Your task to perform on an android device: change the upload size in google photos Image 0: 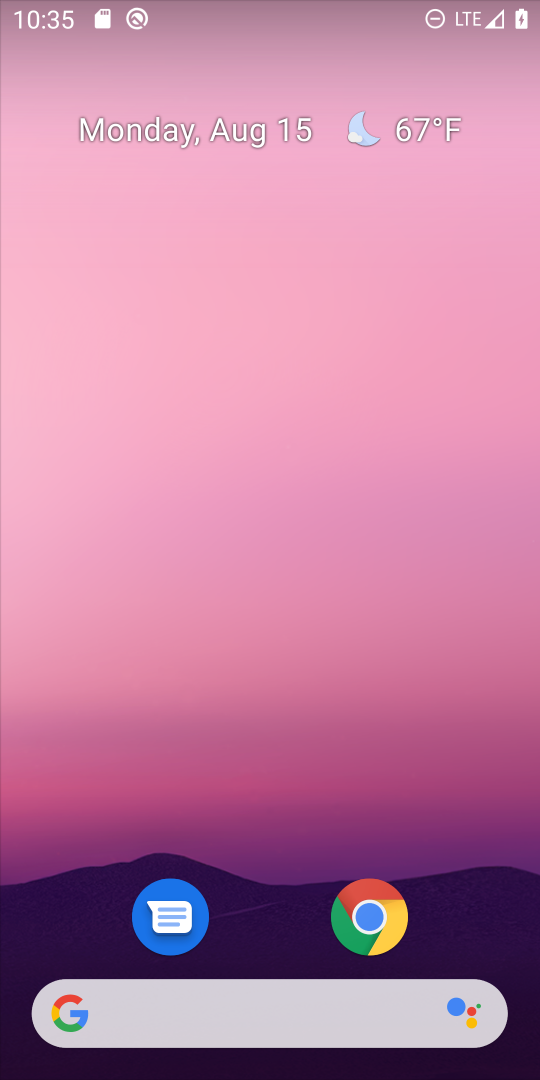
Step 0: drag from (296, 861) to (457, 55)
Your task to perform on an android device: change the upload size in google photos Image 1: 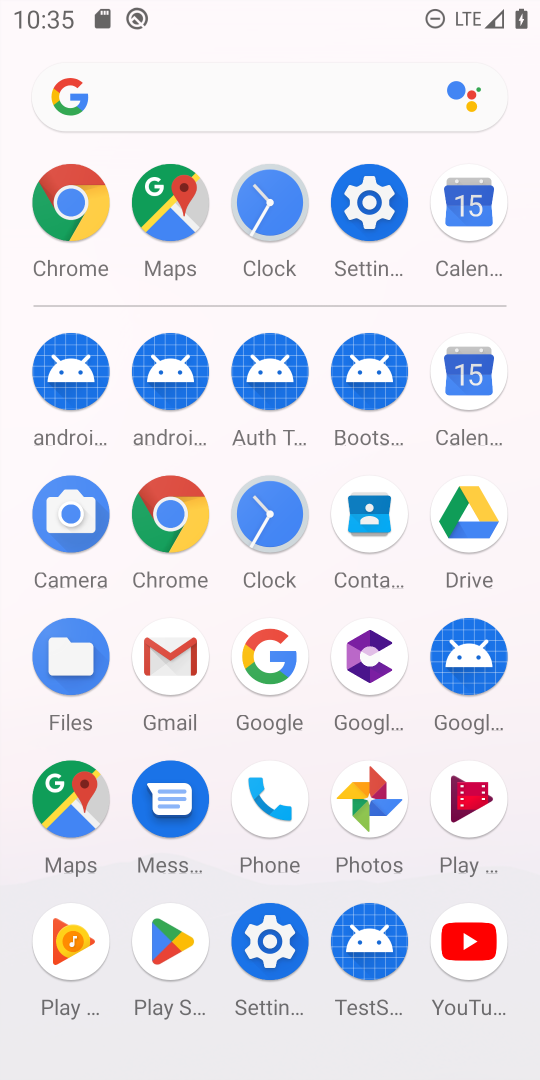
Step 1: click (376, 791)
Your task to perform on an android device: change the upload size in google photos Image 2: 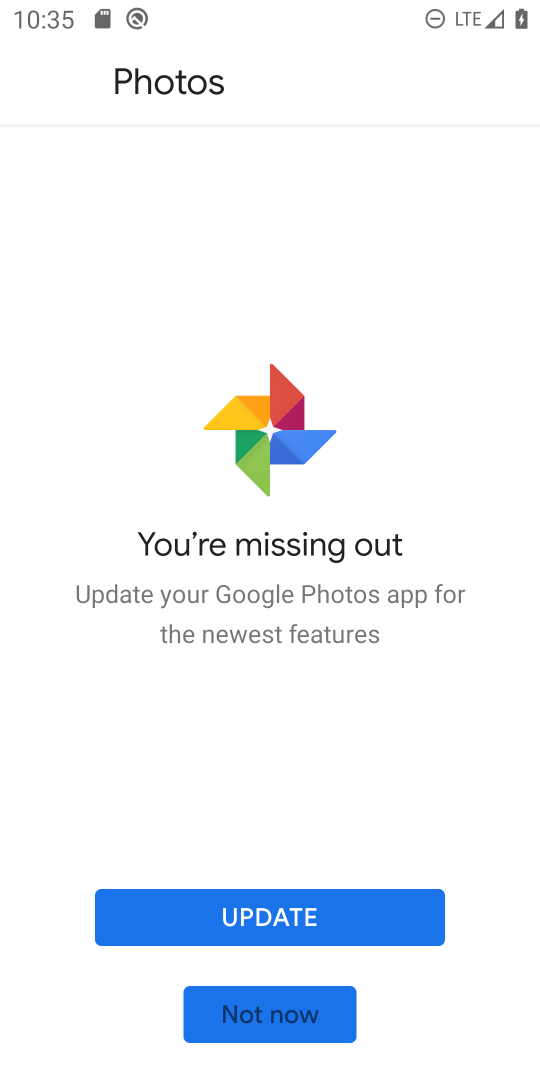
Step 2: click (289, 994)
Your task to perform on an android device: change the upload size in google photos Image 3: 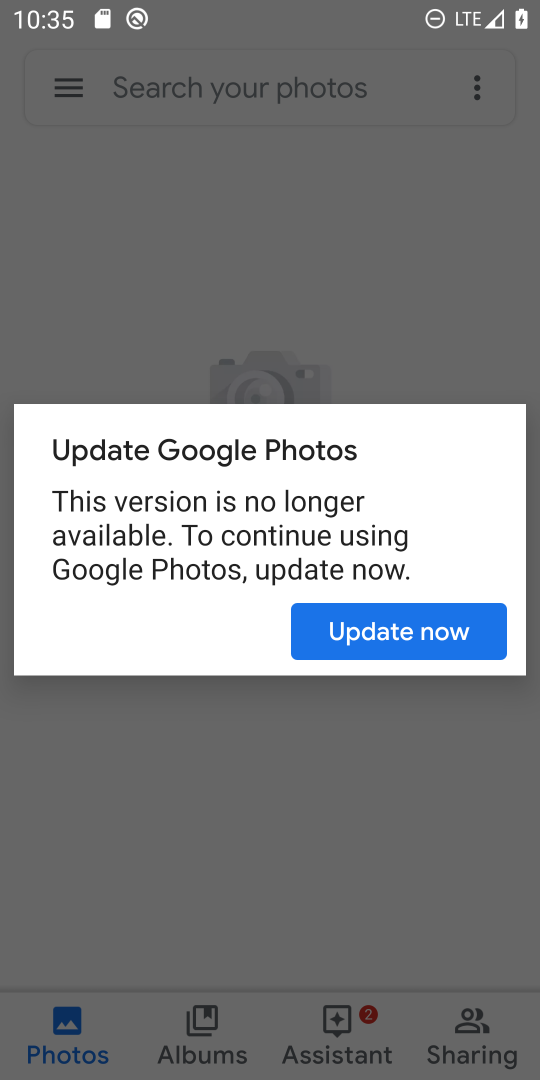
Step 3: click (457, 627)
Your task to perform on an android device: change the upload size in google photos Image 4: 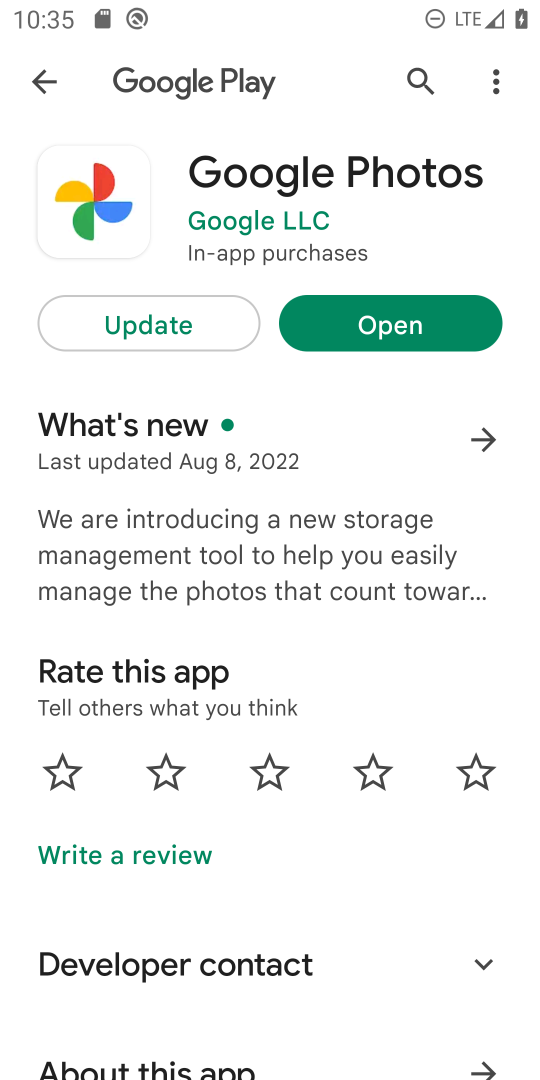
Step 4: click (377, 307)
Your task to perform on an android device: change the upload size in google photos Image 5: 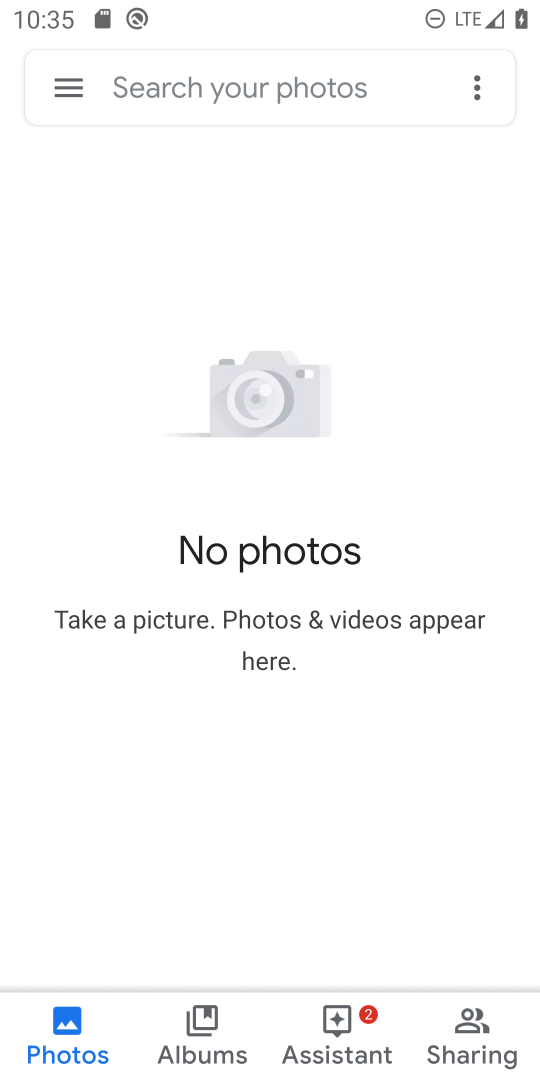
Step 5: click (74, 94)
Your task to perform on an android device: change the upload size in google photos Image 6: 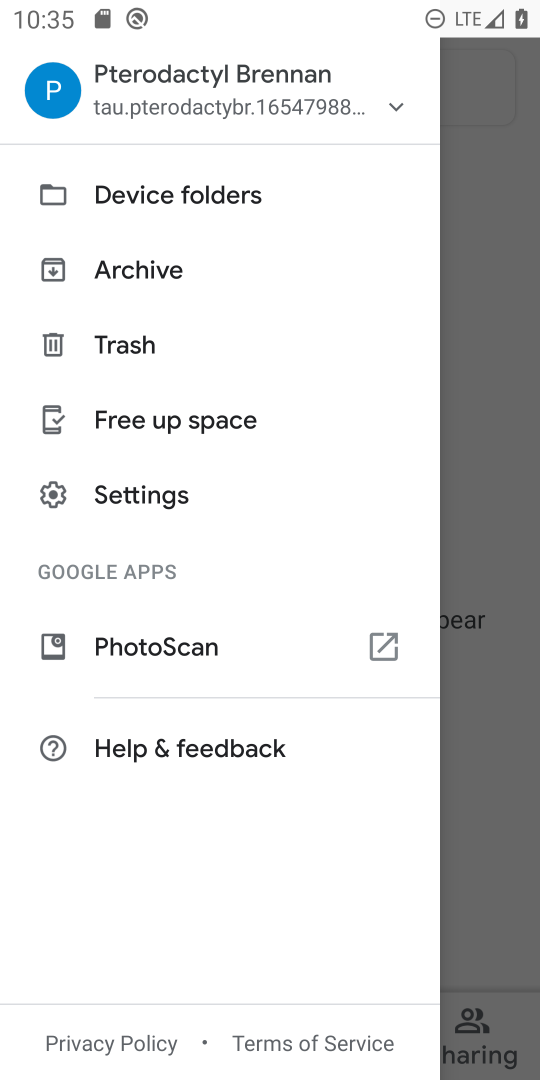
Step 6: click (130, 501)
Your task to perform on an android device: change the upload size in google photos Image 7: 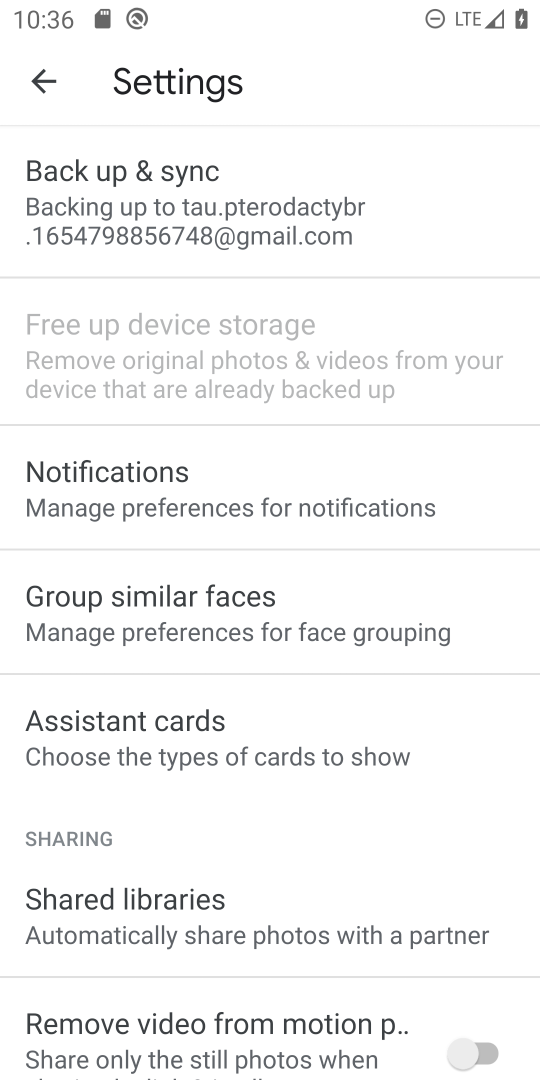
Step 7: click (183, 178)
Your task to perform on an android device: change the upload size in google photos Image 8: 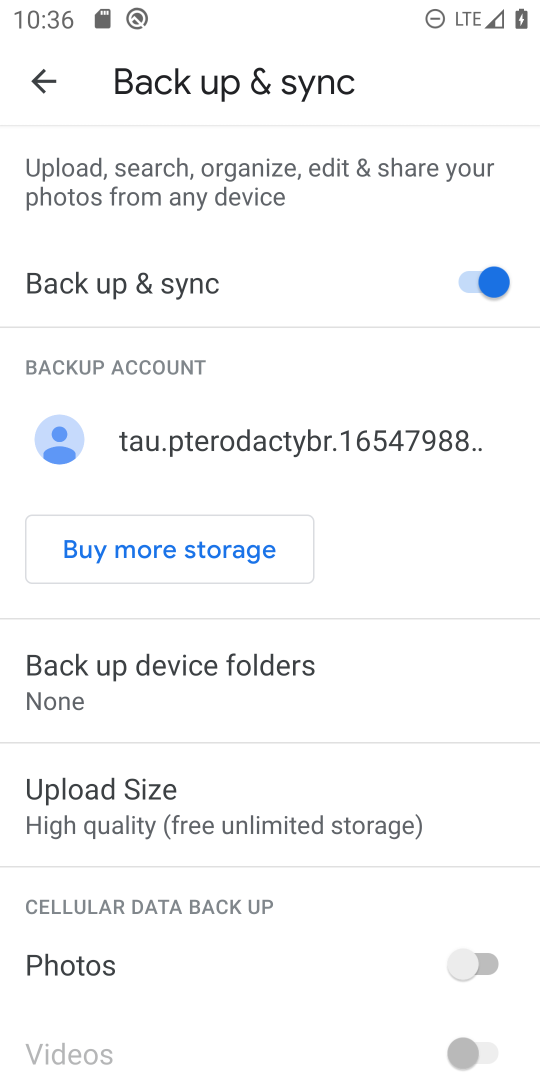
Step 8: click (182, 785)
Your task to perform on an android device: change the upload size in google photos Image 9: 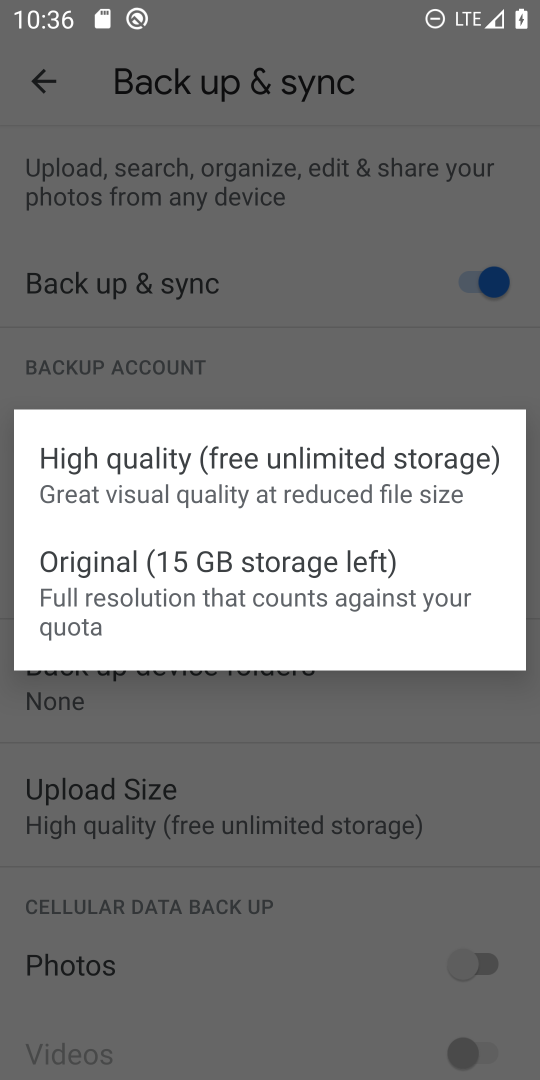
Step 9: click (207, 576)
Your task to perform on an android device: change the upload size in google photos Image 10: 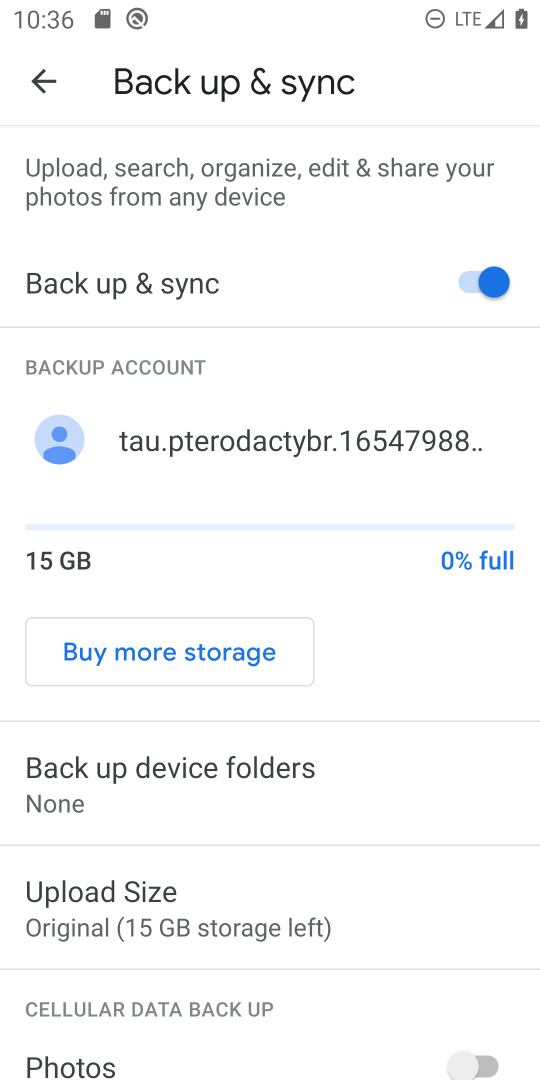
Step 10: task complete